Your task to perform on an android device: move an email to a new category in the gmail app Image 0: 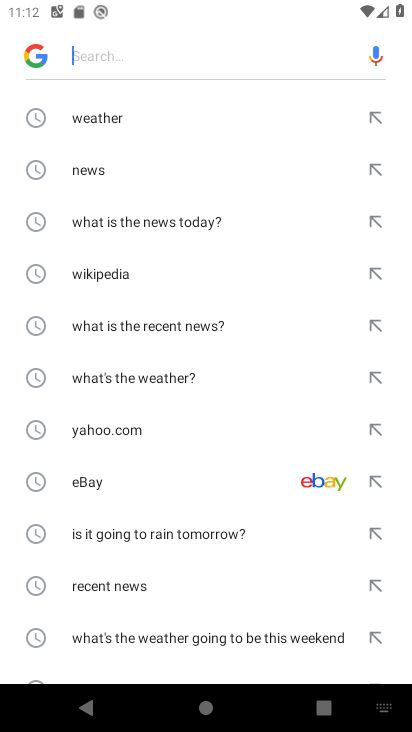
Step 0: press home button
Your task to perform on an android device: move an email to a new category in the gmail app Image 1: 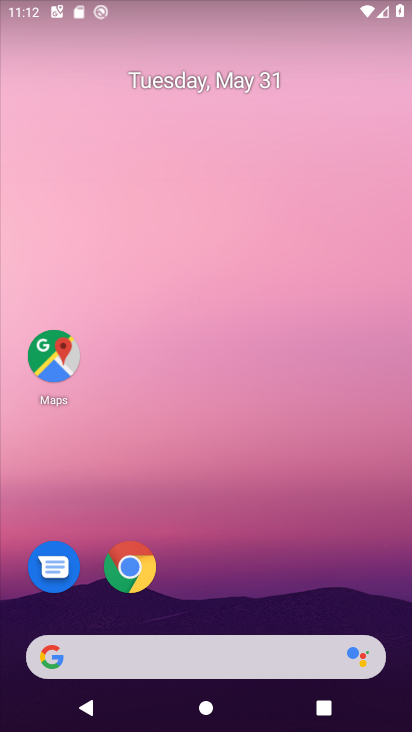
Step 1: drag from (190, 620) to (240, 71)
Your task to perform on an android device: move an email to a new category in the gmail app Image 2: 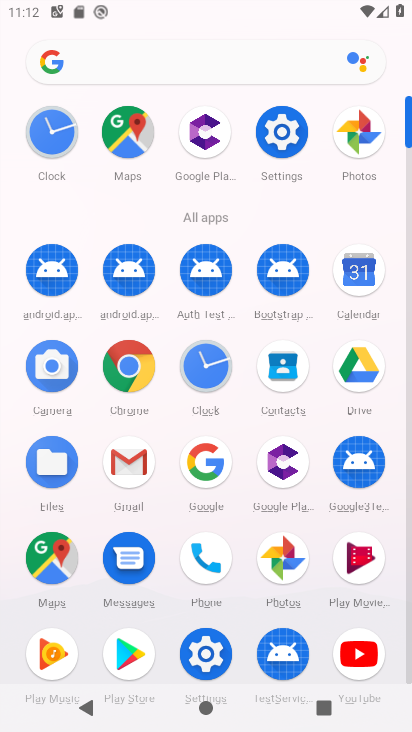
Step 2: click (130, 469)
Your task to perform on an android device: move an email to a new category in the gmail app Image 3: 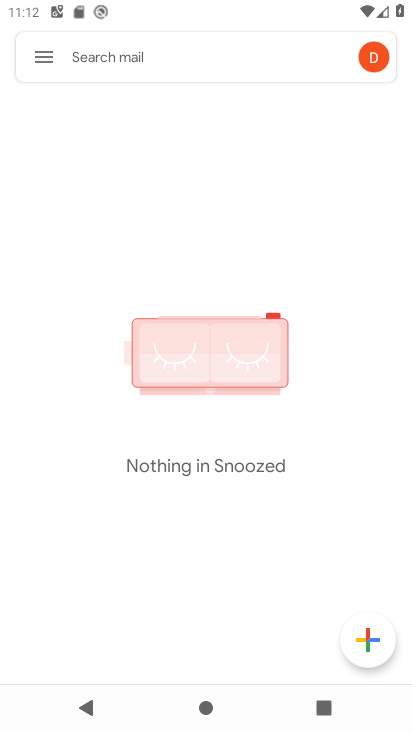
Step 3: click (50, 47)
Your task to perform on an android device: move an email to a new category in the gmail app Image 4: 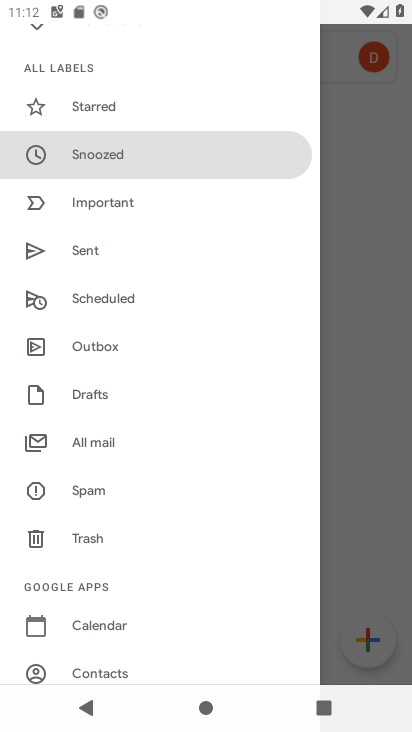
Step 4: drag from (111, 106) to (152, 650)
Your task to perform on an android device: move an email to a new category in the gmail app Image 5: 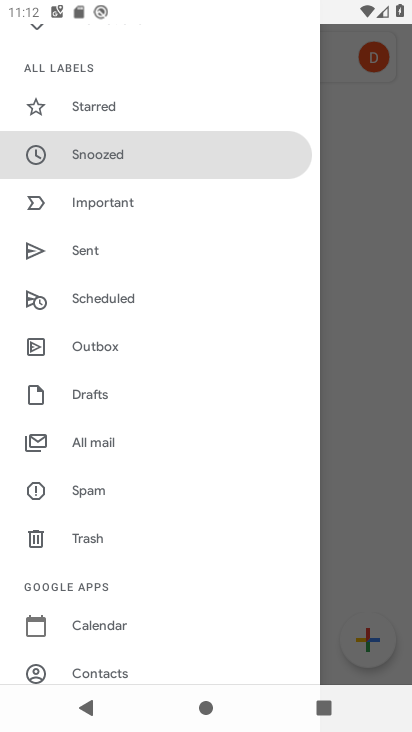
Step 5: drag from (223, 112) to (270, 629)
Your task to perform on an android device: move an email to a new category in the gmail app Image 6: 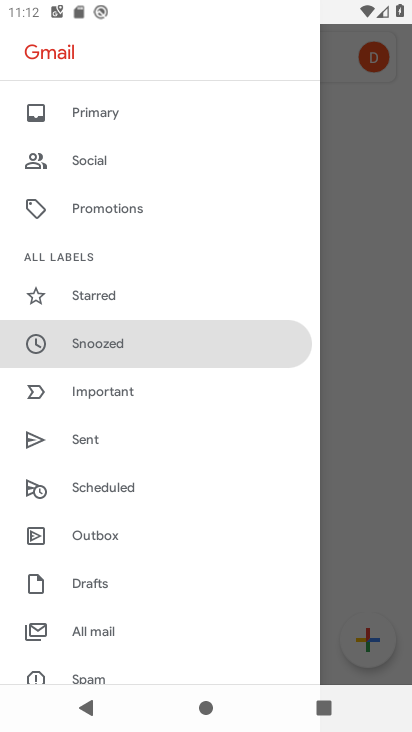
Step 6: click (108, 649)
Your task to perform on an android device: move an email to a new category in the gmail app Image 7: 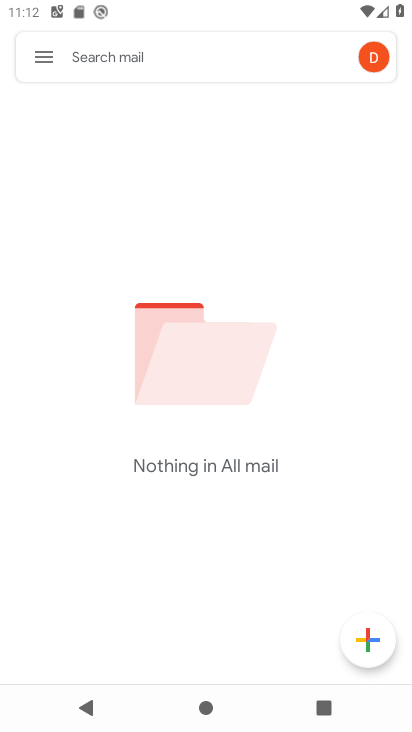
Step 7: task complete